Your task to perform on an android device: delete a single message in the gmail app Image 0: 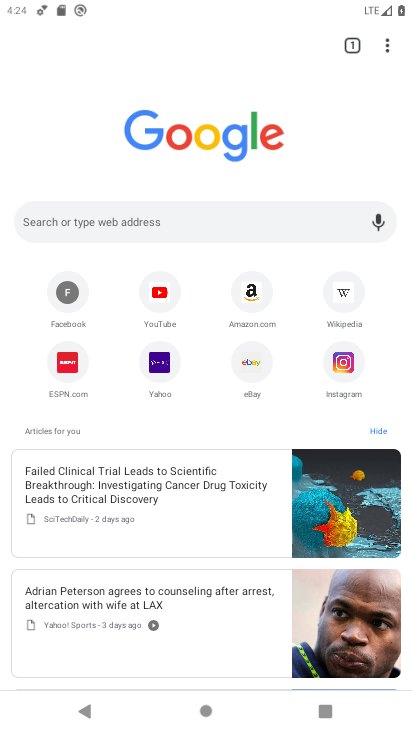
Step 0: press home button
Your task to perform on an android device: delete a single message in the gmail app Image 1: 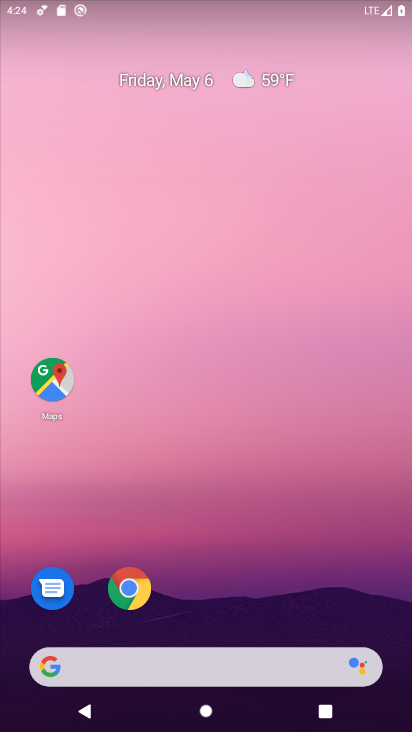
Step 1: drag from (221, 724) to (226, 136)
Your task to perform on an android device: delete a single message in the gmail app Image 2: 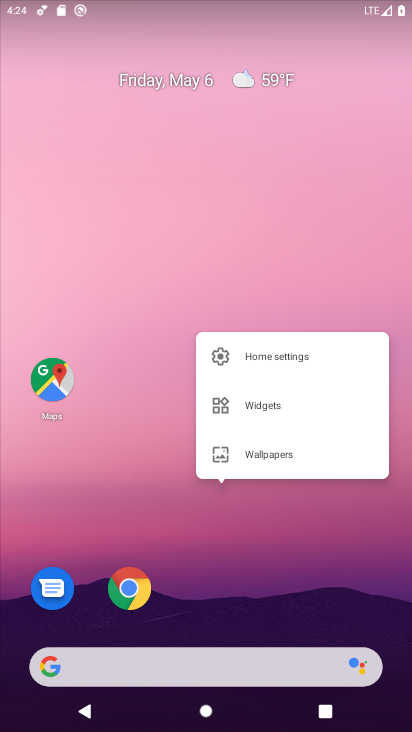
Step 2: click (221, 208)
Your task to perform on an android device: delete a single message in the gmail app Image 3: 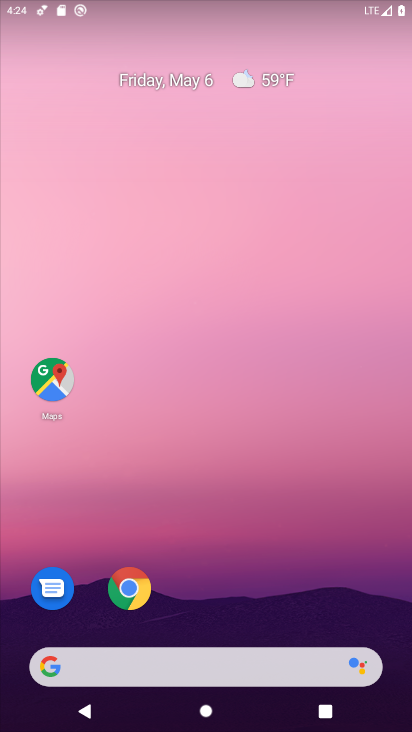
Step 3: drag from (223, 727) to (220, 185)
Your task to perform on an android device: delete a single message in the gmail app Image 4: 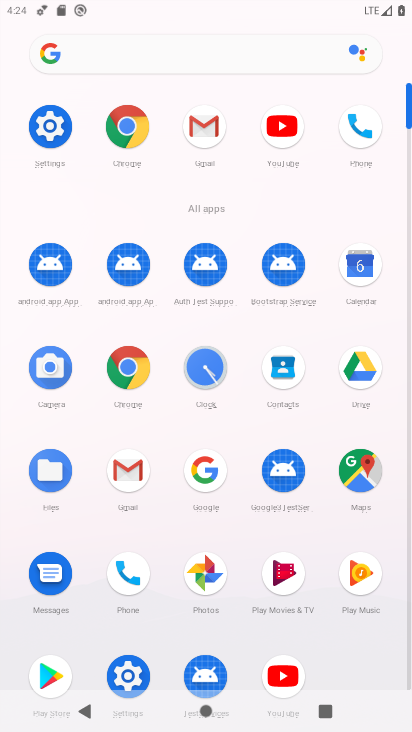
Step 4: click (118, 474)
Your task to perform on an android device: delete a single message in the gmail app Image 5: 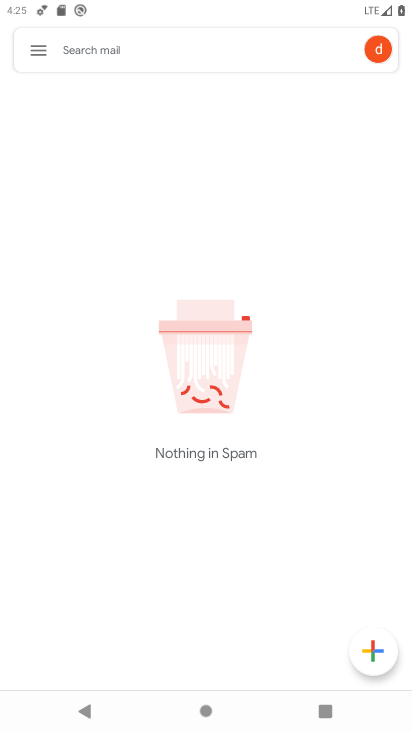
Step 5: click (42, 51)
Your task to perform on an android device: delete a single message in the gmail app Image 6: 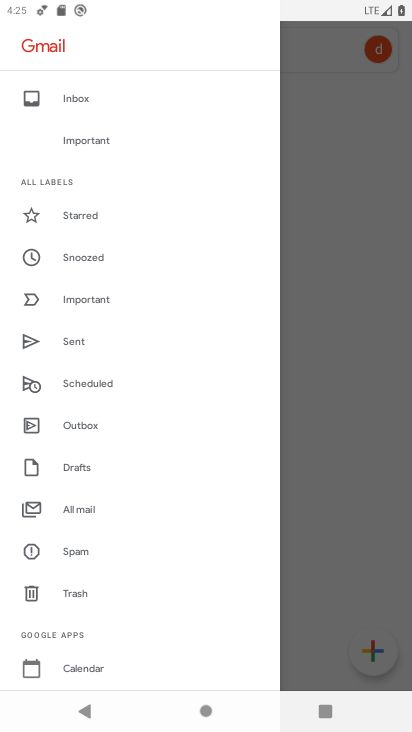
Step 6: click (75, 98)
Your task to perform on an android device: delete a single message in the gmail app Image 7: 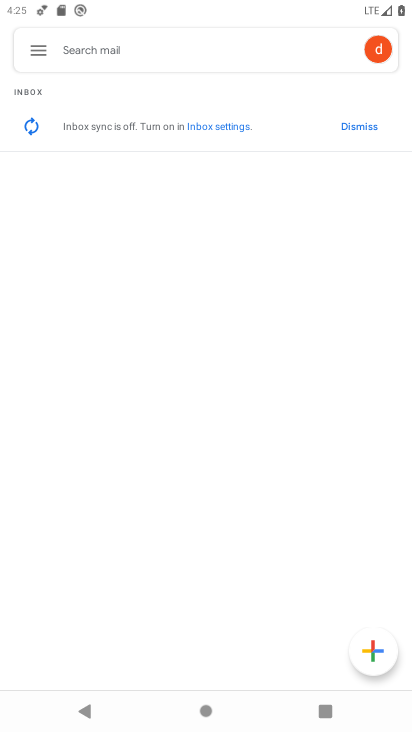
Step 7: task complete